Your task to perform on an android device: change timer sound Image 0: 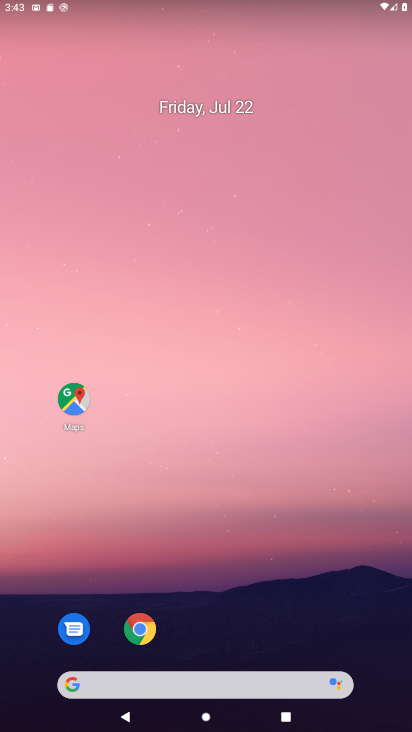
Step 0: drag from (245, 586) to (219, 140)
Your task to perform on an android device: change timer sound Image 1: 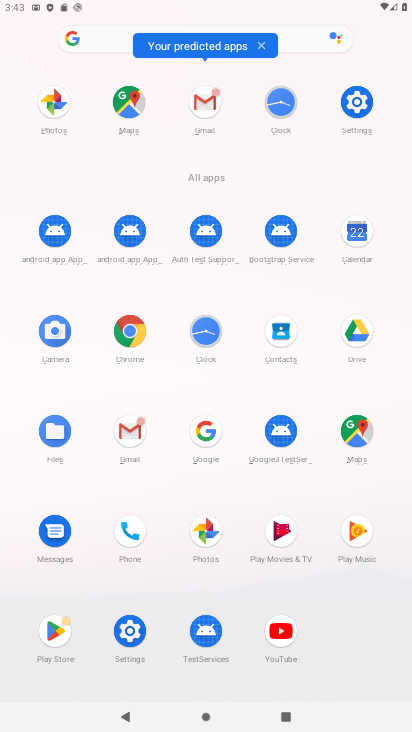
Step 1: click (124, 637)
Your task to perform on an android device: change timer sound Image 2: 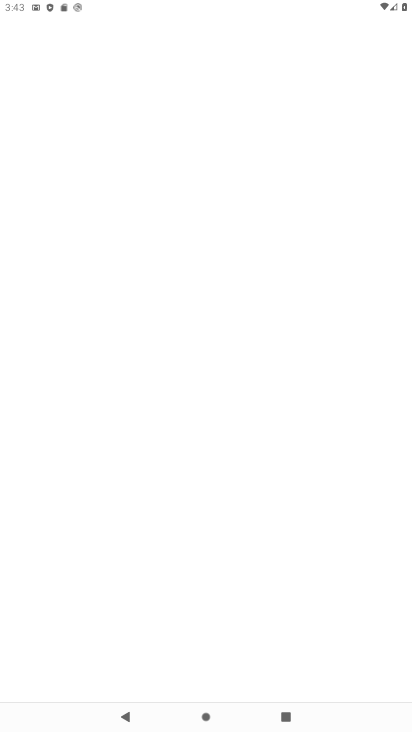
Step 2: press home button
Your task to perform on an android device: change timer sound Image 3: 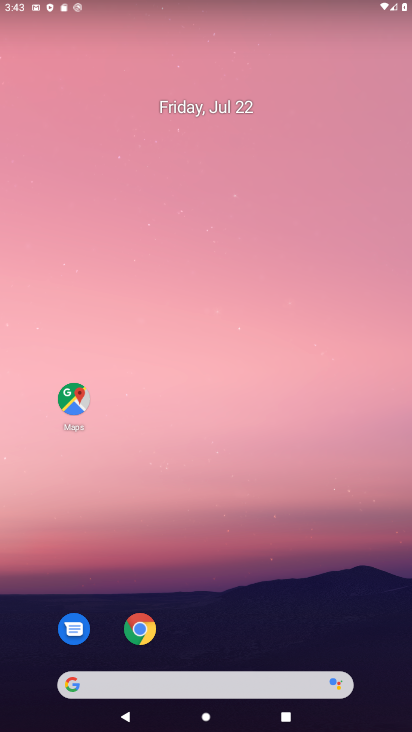
Step 3: drag from (356, 508) to (309, 88)
Your task to perform on an android device: change timer sound Image 4: 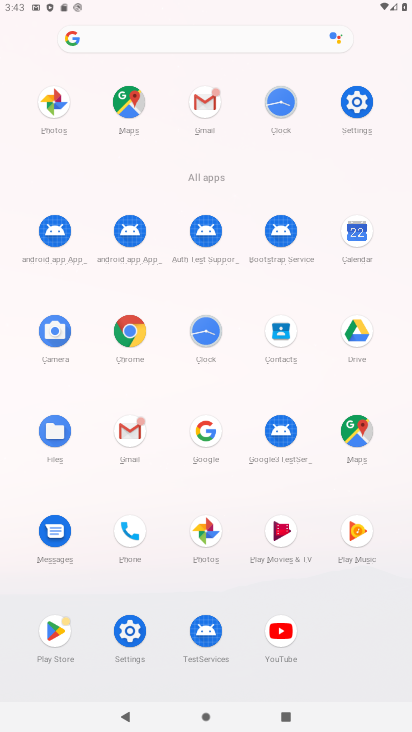
Step 4: click (204, 331)
Your task to perform on an android device: change timer sound Image 5: 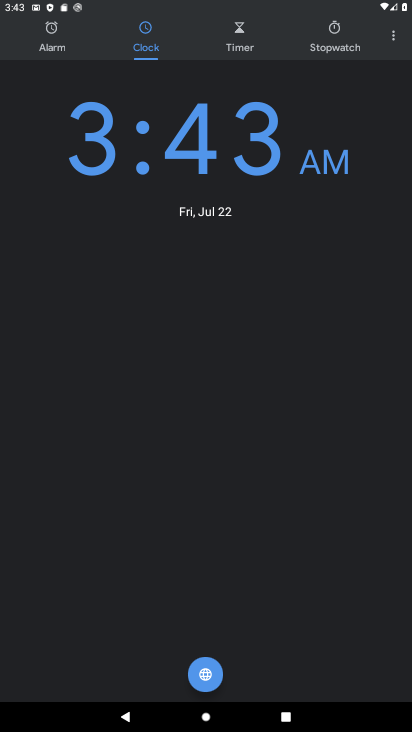
Step 5: click (399, 45)
Your task to perform on an android device: change timer sound Image 6: 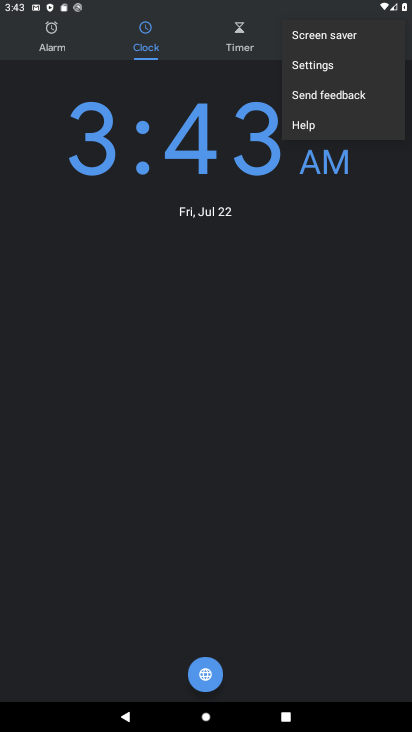
Step 6: click (311, 61)
Your task to perform on an android device: change timer sound Image 7: 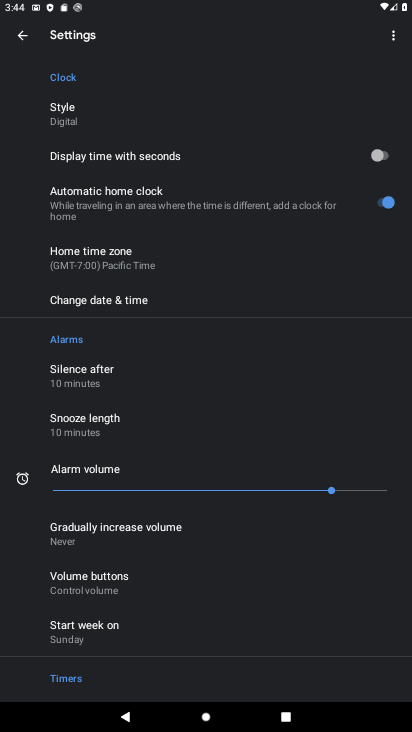
Step 7: drag from (213, 571) to (162, 309)
Your task to perform on an android device: change timer sound Image 8: 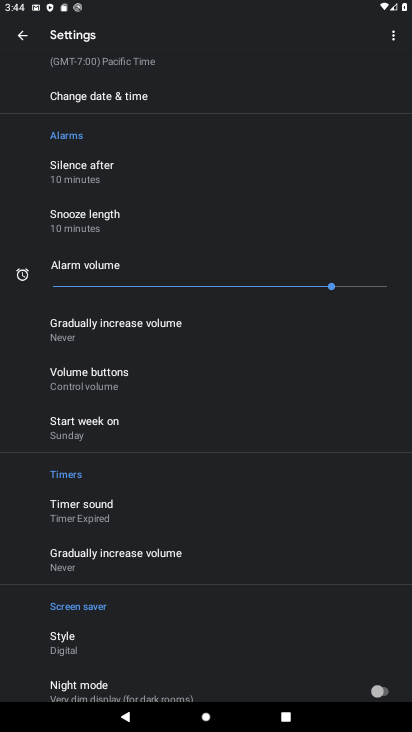
Step 8: click (88, 505)
Your task to perform on an android device: change timer sound Image 9: 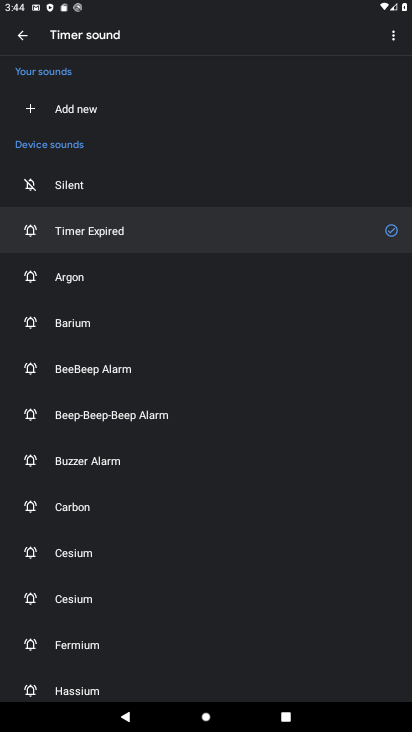
Step 9: click (88, 503)
Your task to perform on an android device: change timer sound Image 10: 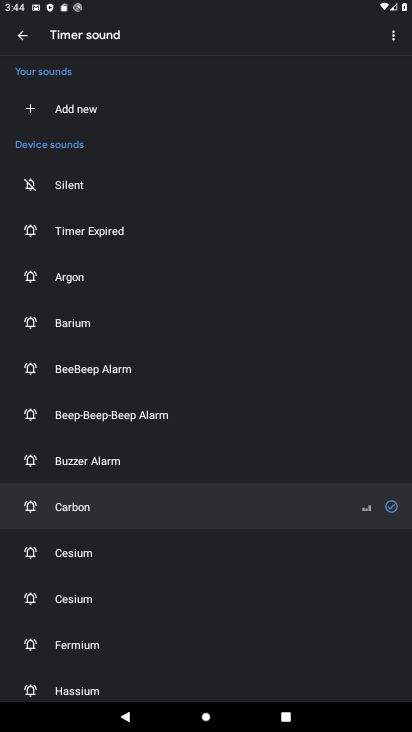
Step 10: task complete